Your task to perform on an android device: What's on my calendar tomorrow? Image 0: 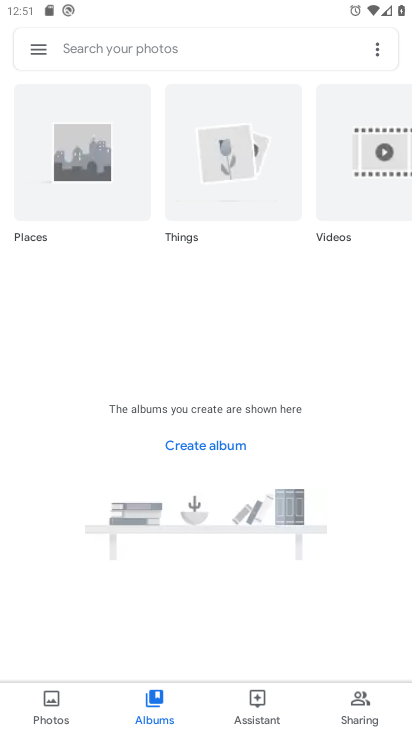
Step 0: press home button
Your task to perform on an android device: What's on my calendar tomorrow? Image 1: 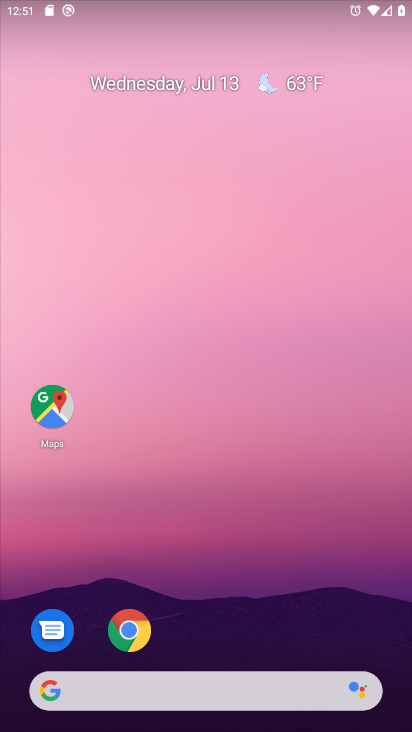
Step 1: drag from (212, 696) to (245, 355)
Your task to perform on an android device: What's on my calendar tomorrow? Image 2: 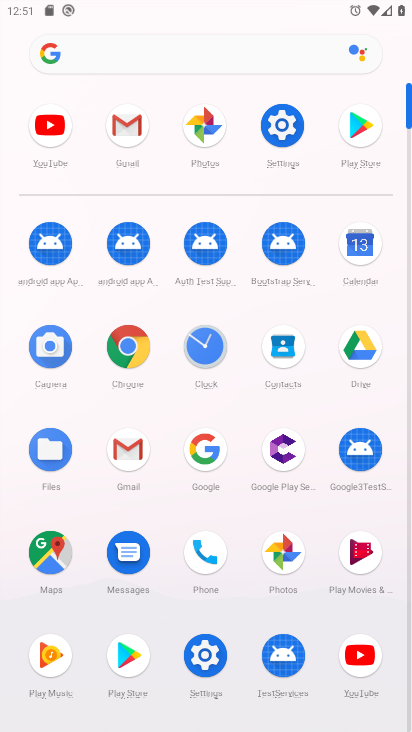
Step 2: click (351, 256)
Your task to perform on an android device: What's on my calendar tomorrow? Image 3: 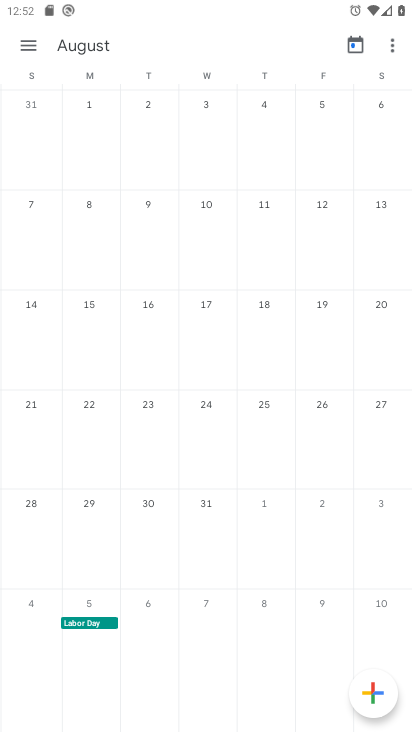
Step 3: drag from (65, 234) to (376, 292)
Your task to perform on an android device: What's on my calendar tomorrow? Image 4: 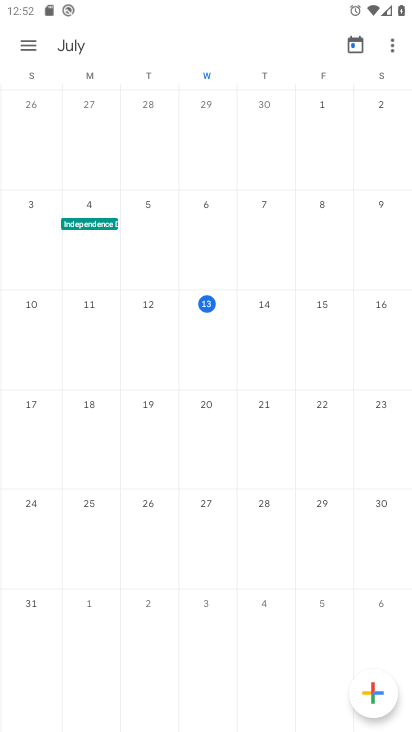
Step 4: click (262, 309)
Your task to perform on an android device: What's on my calendar tomorrow? Image 5: 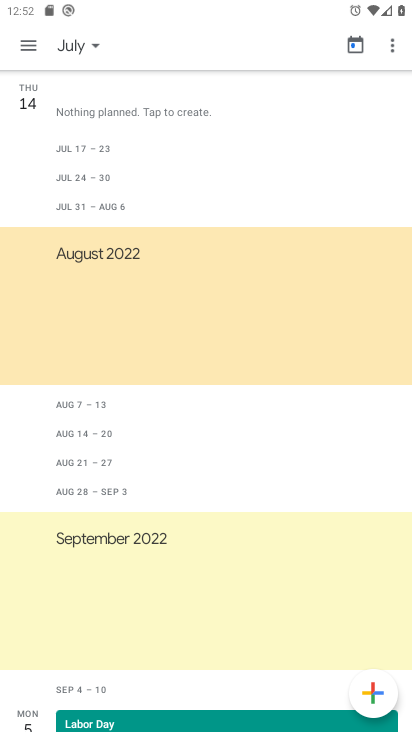
Step 5: task complete